Your task to perform on an android device: Search for vegetarian restaurants on Maps Image 0: 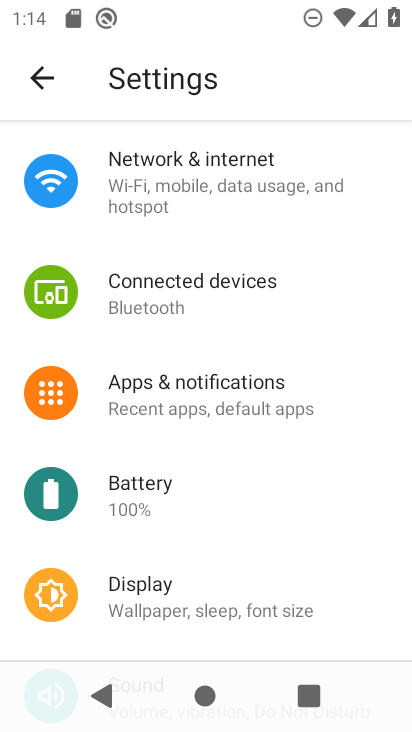
Step 0: press home button
Your task to perform on an android device: Search for vegetarian restaurants on Maps Image 1: 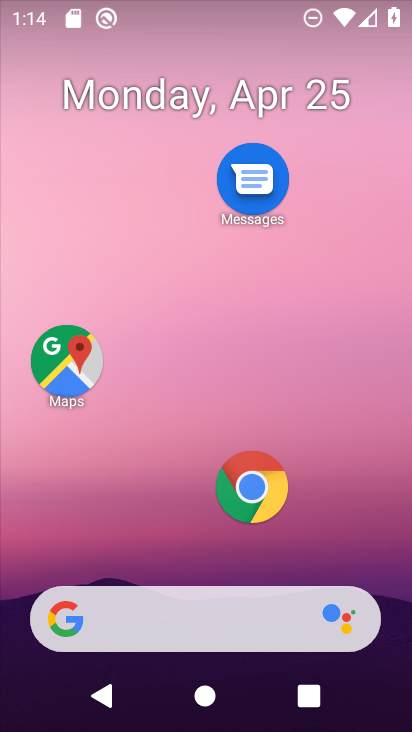
Step 1: drag from (122, 526) to (227, 87)
Your task to perform on an android device: Search for vegetarian restaurants on Maps Image 2: 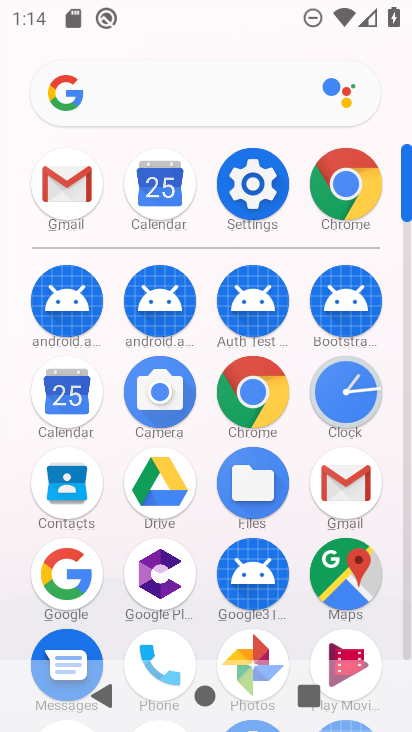
Step 2: drag from (307, 606) to (285, 282)
Your task to perform on an android device: Search for vegetarian restaurants on Maps Image 3: 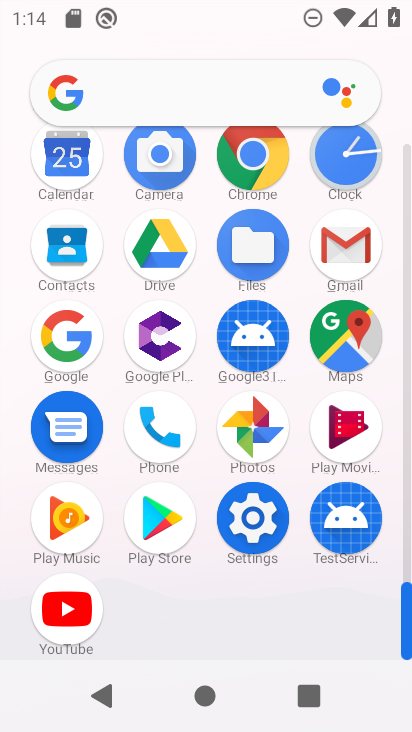
Step 3: click (354, 349)
Your task to perform on an android device: Search for vegetarian restaurants on Maps Image 4: 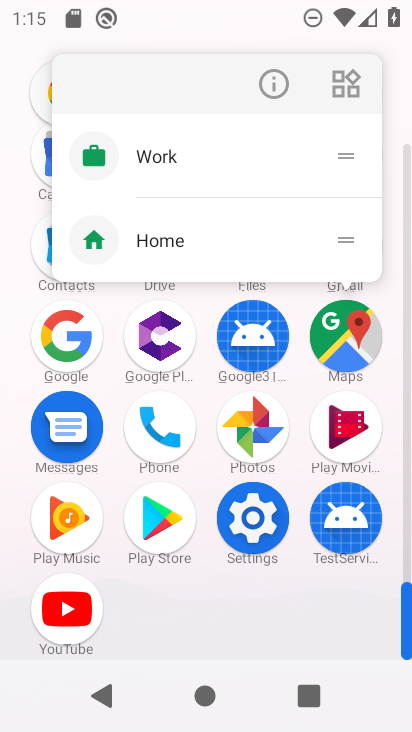
Step 4: click (333, 333)
Your task to perform on an android device: Search for vegetarian restaurants on Maps Image 5: 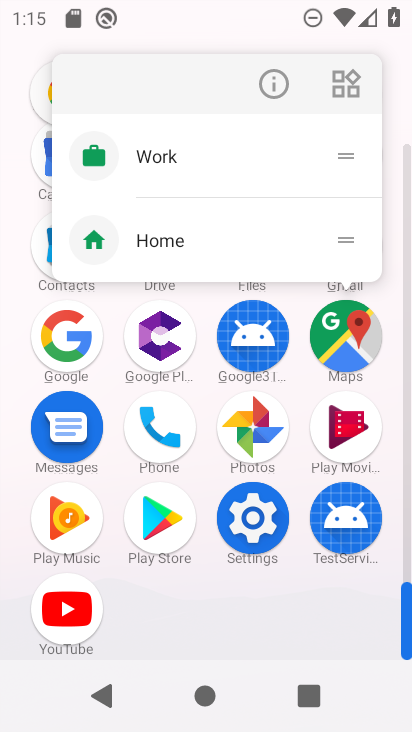
Step 5: click (333, 332)
Your task to perform on an android device: Search for vegetarian restaurants on Maps Image 6: 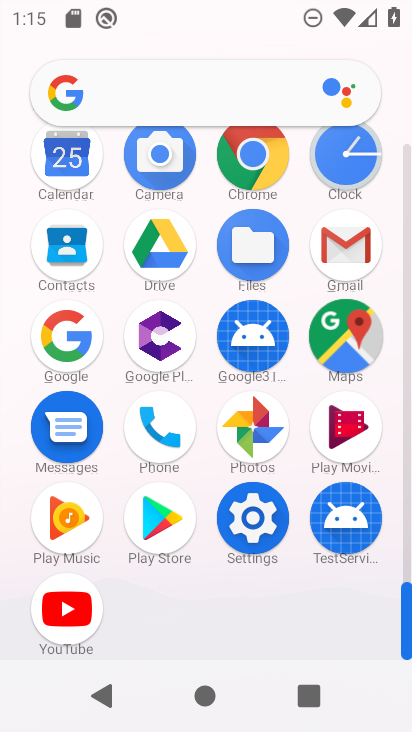
Step 6: click (340, 330)
Your task to perform on an android device: Search for vegetarian restaurants on Maps Image 7: 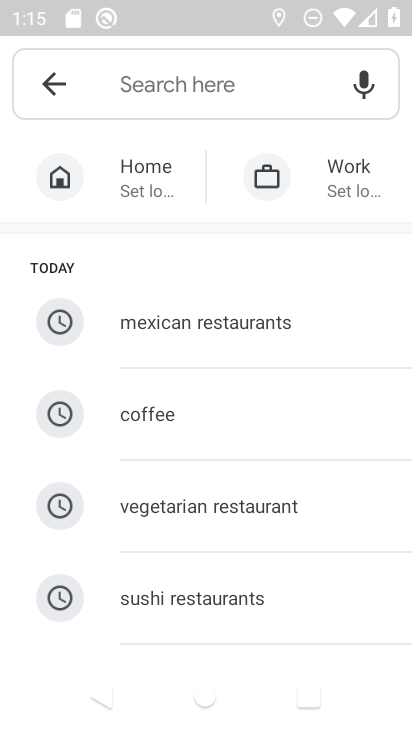
Step 7: click (153, 501)
Your task to perform on an android device: Search for vegetarian restaurants on Maps Image 8: 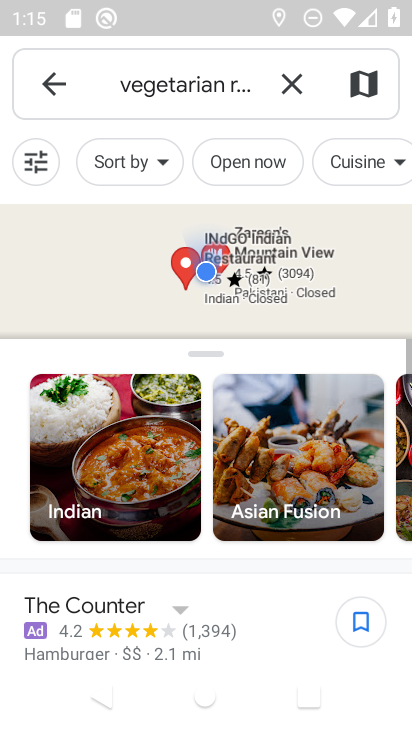
Step 8: task complete